Your task to perform on an android device: change timer sound Image 0: 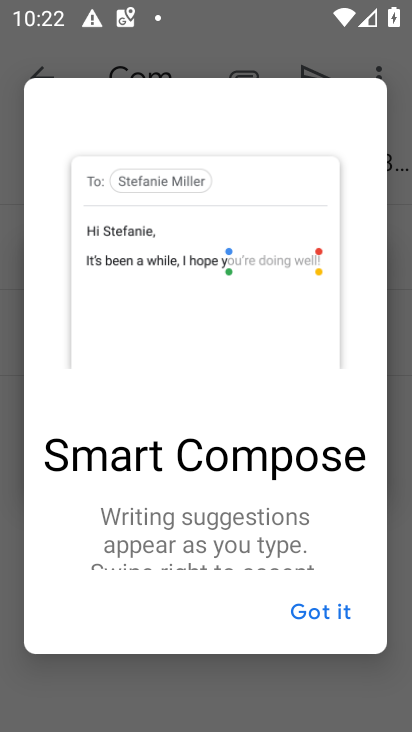
Step 0: press home button
Your task to perform on an android device: change timer sound Image 1: 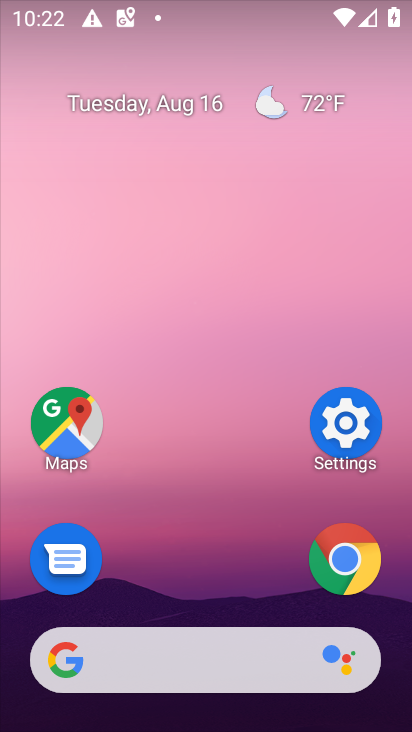
Step 1: drag from (228, 582) to (339, 146)
Your task to perform on an android device: change timer sound Image 2: 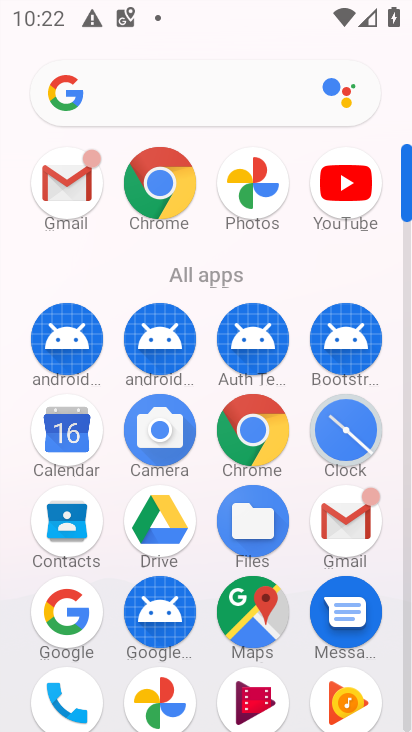
Step 2: click (342, 432)
Your task to perform on an android device: change timer sound Image 3: 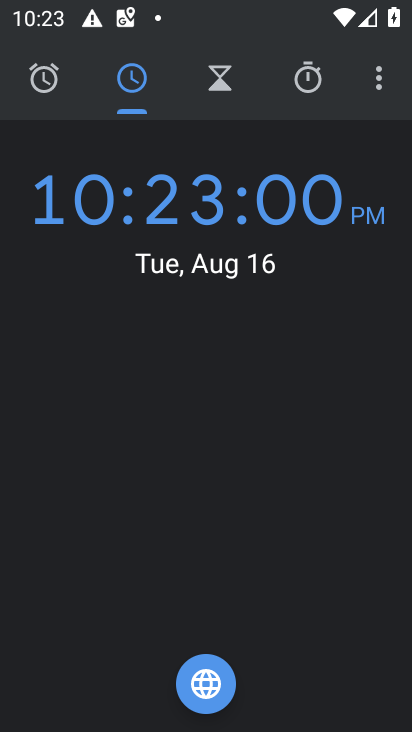
Step 3: click (222, 86)
Your task to perform on an android device: change timer sound Image 4: 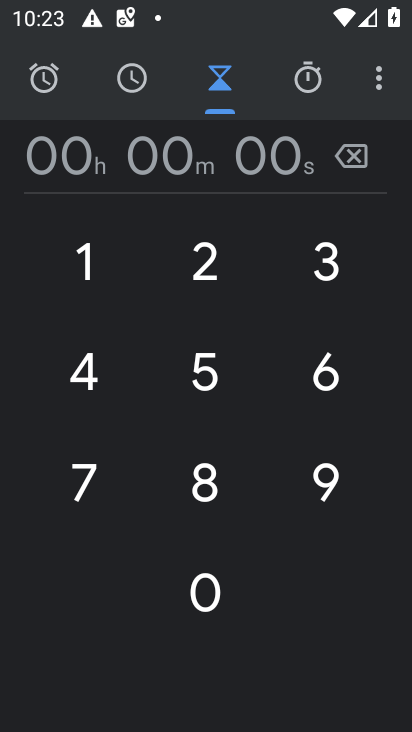
Step 4: click (201, 472)
Your task to perform on an android device: change timer sound Image 5: 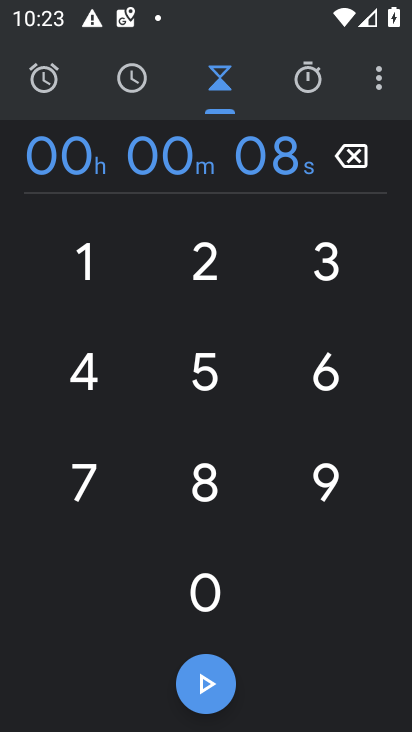
Step 5: click (82, 366)
Your task to perform on an android device: change timer sound Image 6: 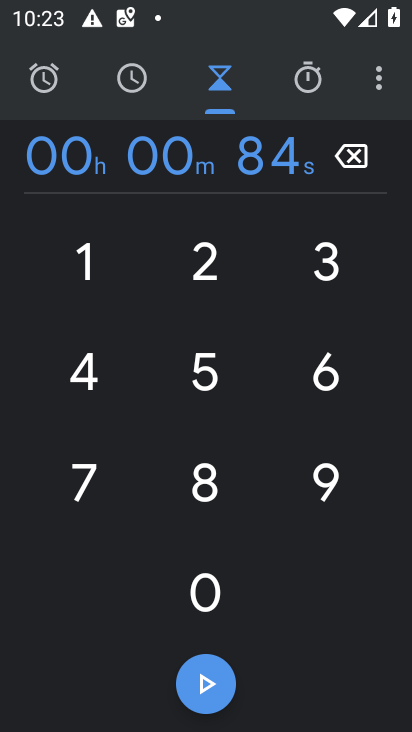
Step 6: click (208, 681)
Your task to perform on an android device: change timer sound Image 7: 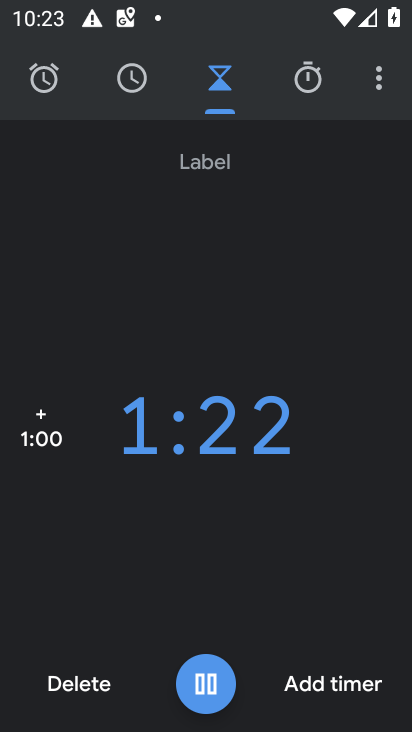
Step 7: click (208, 681)
Your task to perform on an android device: change timer sound Image 8: 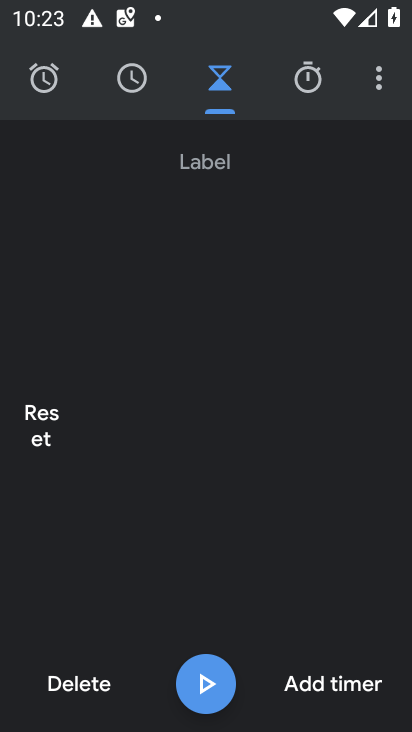
Step 8: task complete